Your task to perform on an android device: turn on location history Image 0: 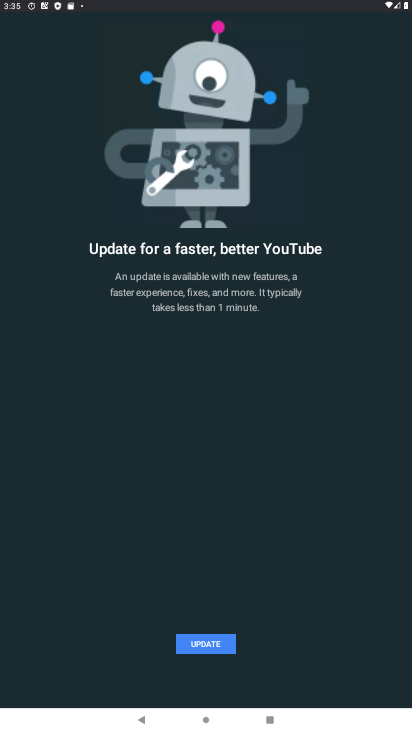
Step 0: press home button
Your task to perform on an android device: turn on location history Image 1: 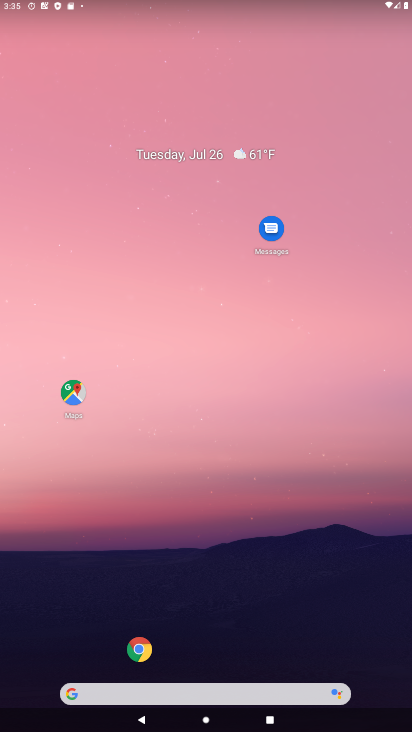
Step 1: drag from (94, 490) to (145, 215)
Your task to perform on an android device: turn on location history Image 2: 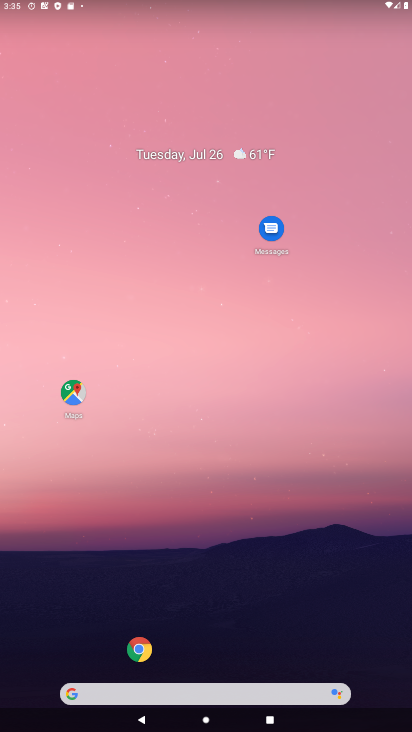
Step 2: drag from (75, 540) to (140, 193)
Your task to perform on an android device: turn on location history Image 3: 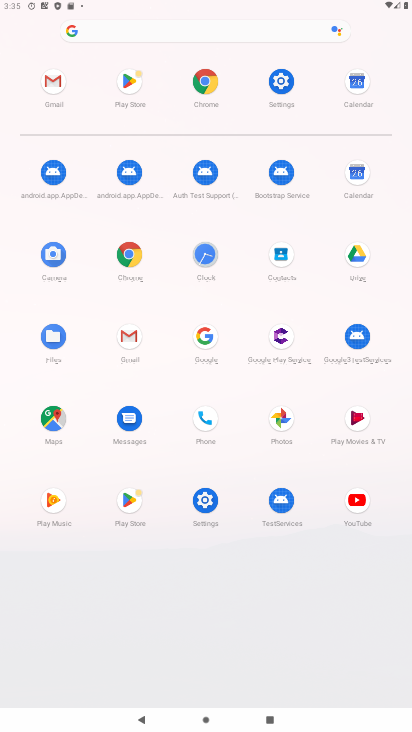
Step 3: click (208, 508)
Your task to perform on an android device: turn on location history Image 4: 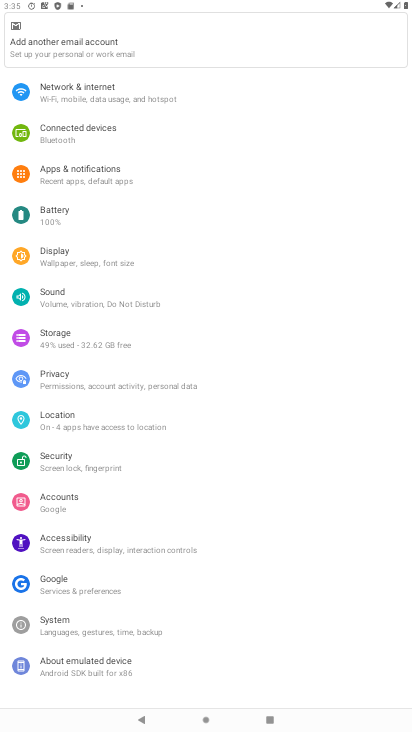
Step 4: click (88, 421)
Your task to perform on an android device: turn on location history Image 5: 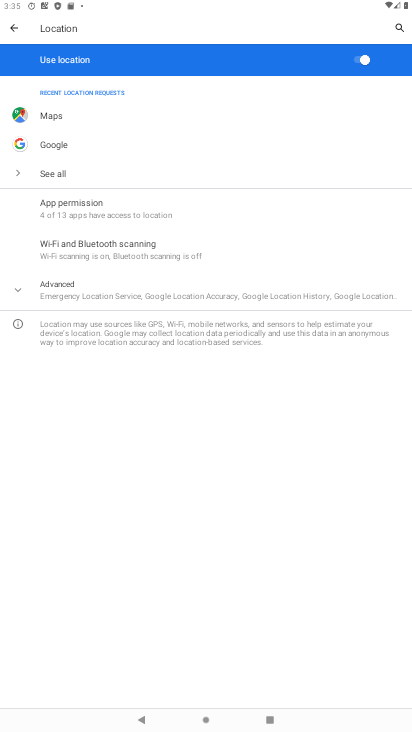
Step 5: click (104, 296)
Your task to perform on an android device: turn on location history Image 6: 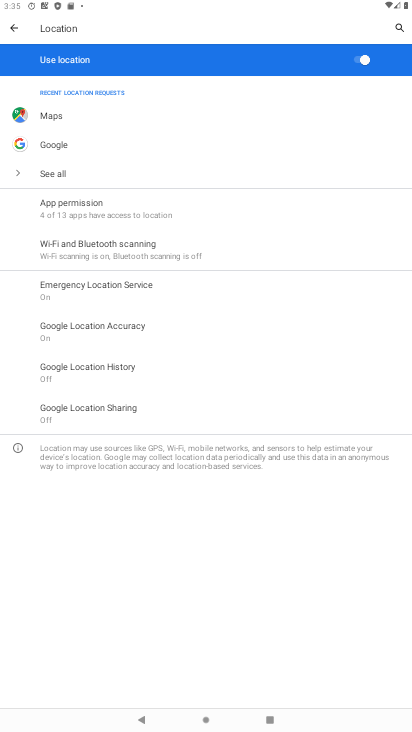
Step 6: click (105, 370)
Your task to perform on an android device: turn on location history Image 7: 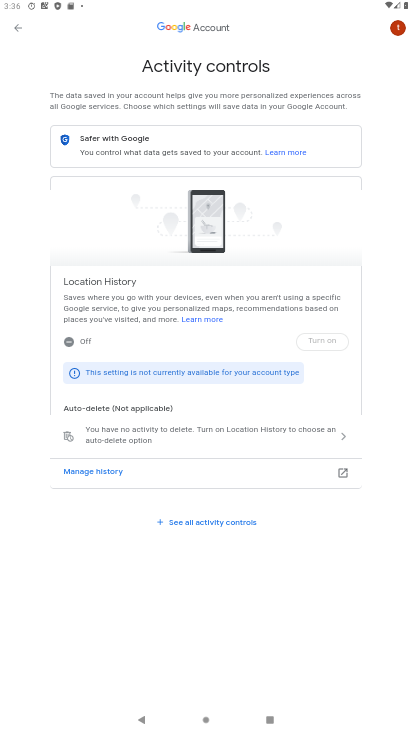
Step 7: click (338, 344)
Your task to perform on an android device: turn on location history Image 8: 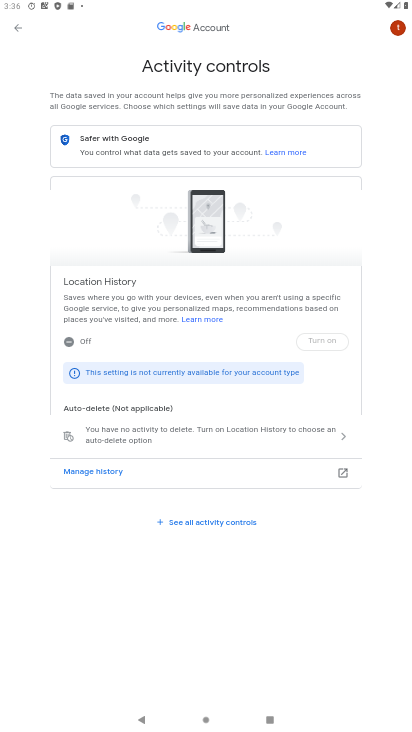
Step 8: click (325, 342)
Your task to perform on an android device: turn on location history Image 9: 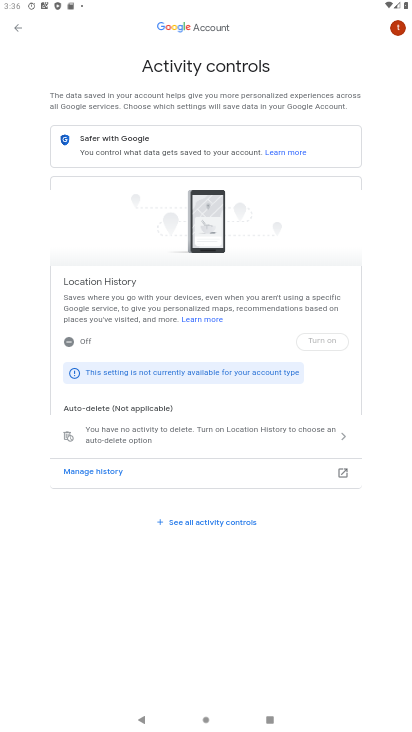
Step 9: task complete